Your task to perform on an android device: Go to Wikipedia Image 0: 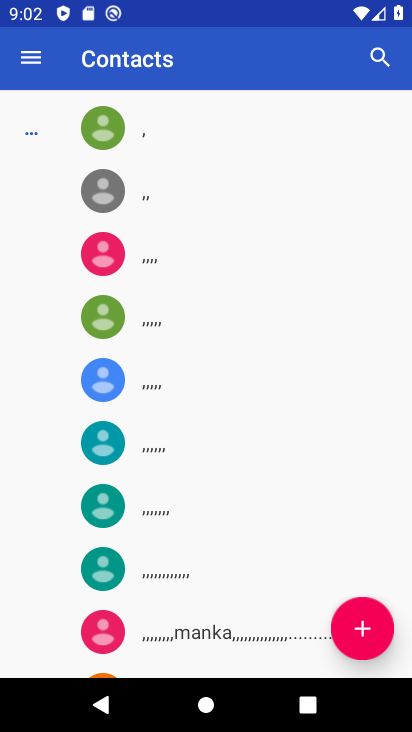
Step 0: press back button
Your task to perform on an android device: Go to Wikipedia Image 1: 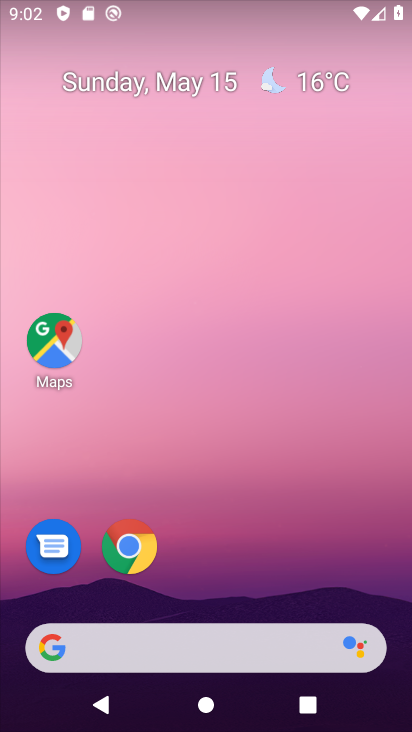
Step 1: click (127, 555)
Your task to perform on an android device: Go to Wikipedia Image 2: 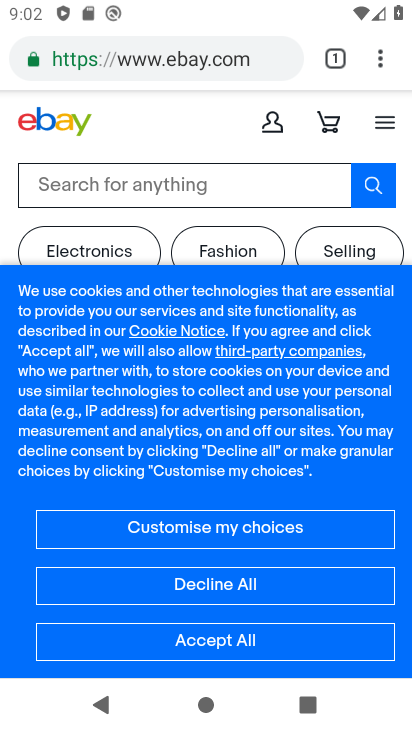
Step 2: drag from (390, 51) to (348, 113)
Your task to perform on an android device: Go to Wikipedia Image 3: 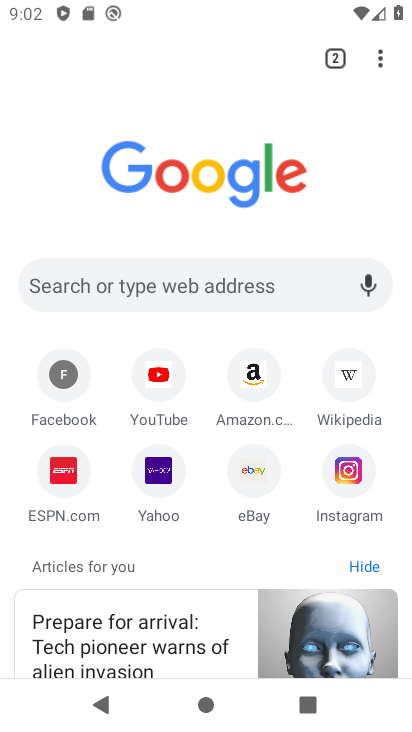
Step 3: click (341, 380)
Your task to perform on an android device: Go to Wikipedia Image 4: 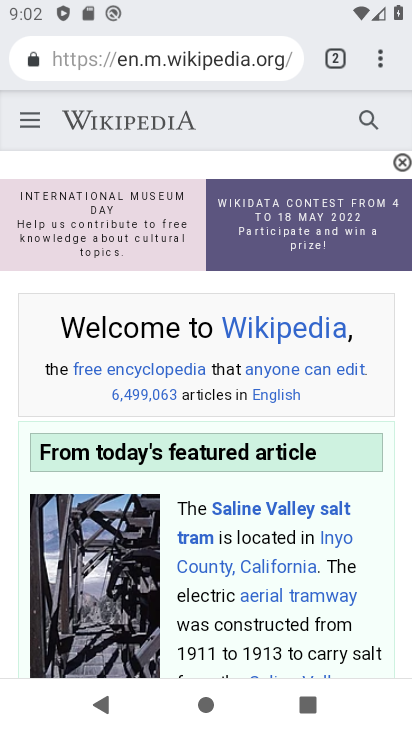
Step 4: task complete